Your task to perform on an android device: turn on improve location accuracy Image 0: 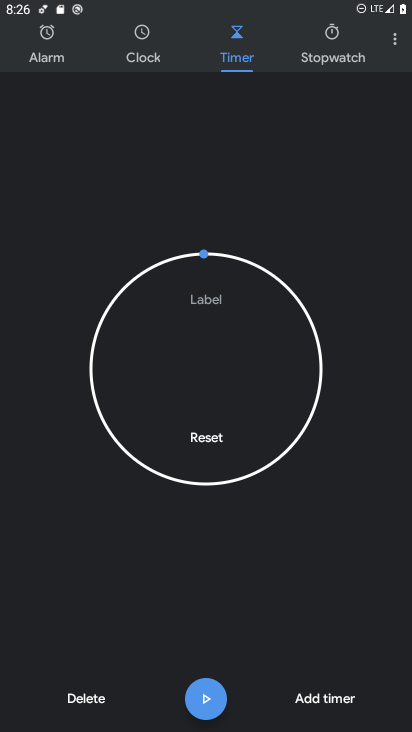
Step 0: press home button
Your task to perform on an android device: turn on improve location accuracy Image 1: 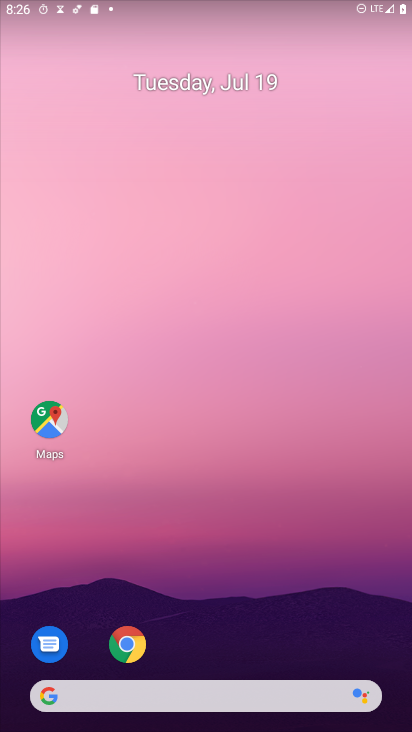
Step 1: drag from (12, 701) to (288, 151)
Your task to perform on an android device: turn on improve location accuracy Image 2: 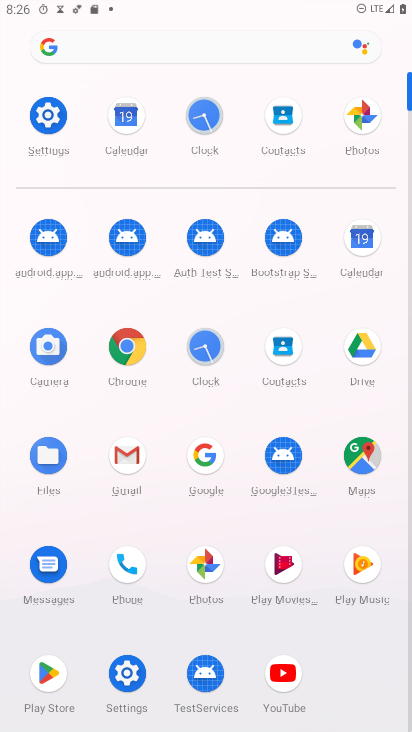
Step 2: click (121, 676)
Your task to perform on an android device: turn on improve location accuracy Image 3: 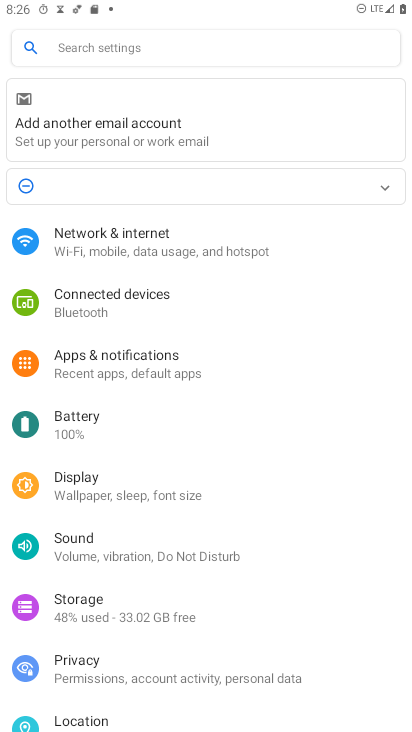
Step 3: click (90, 719)
Your task to perform on an android device: turn on improve location accuracy Image 4: 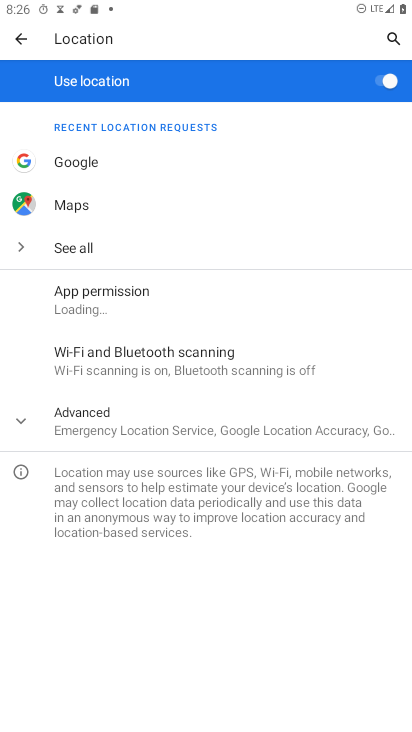
Step 4: click (121, 437)
Your task to perform on an android device: turn on improve location accuracy Image 5: 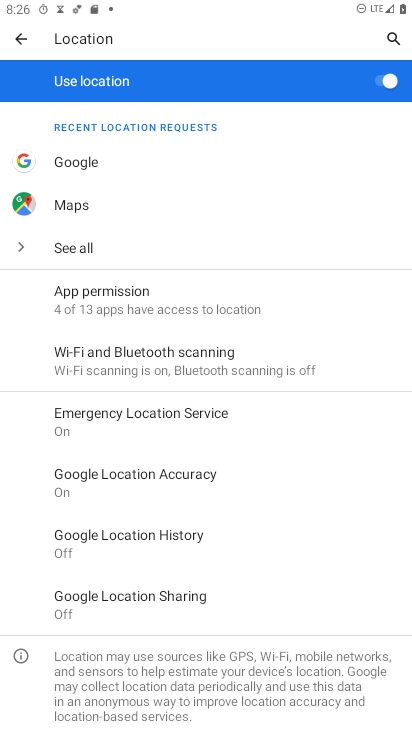
Step 5: task complete